Your task to perform on an android device: Open Android settings Image 0: 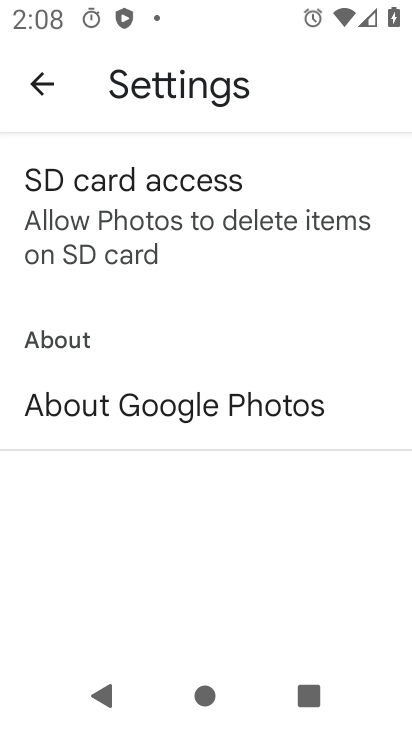
Step 0: press home button
Your task to perform on an android device: Open Android settings Image 1: 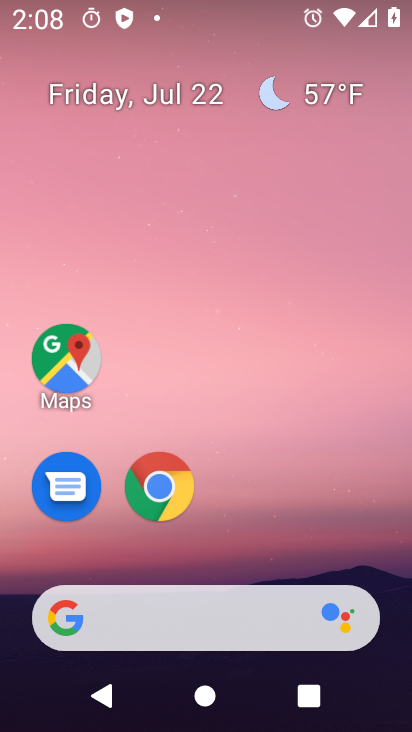
Step 1: drag from (364, 534) to (347, 121)
Your task to perform on an android device: Open Android settings Image 2: 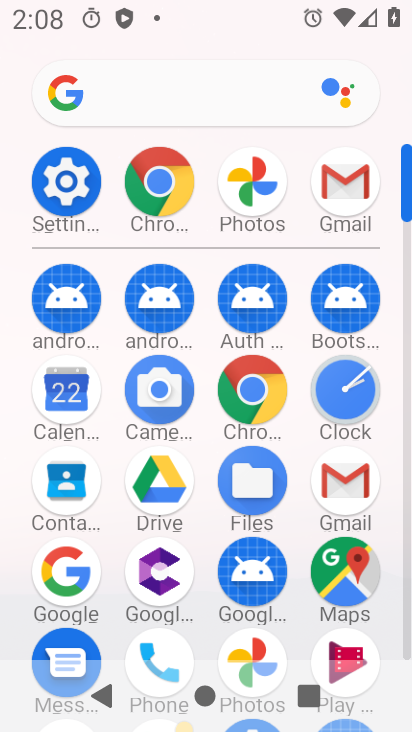
Step 2: click (68, 183)
Your task to perform on an android device: Open Android settings Image 3: 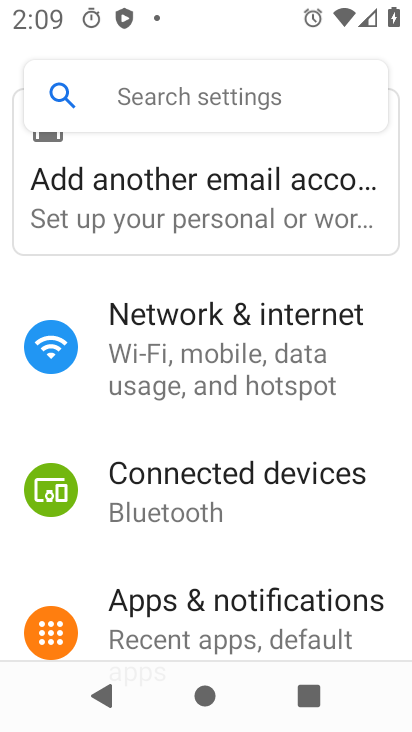
Step 3: drag from (316, 447) to (325, 363)
Your task to perform on an android device: Open Android settings Image 4: 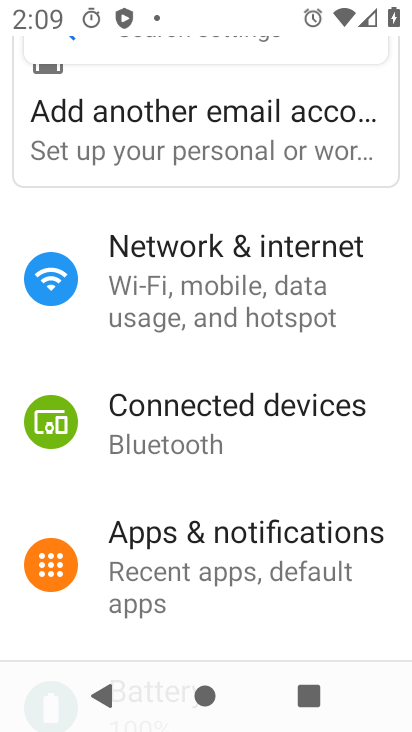
Step 4: drag from (332, 465) to (340, 387)
Your task to perform on an android device: Open Android settings Image 5: 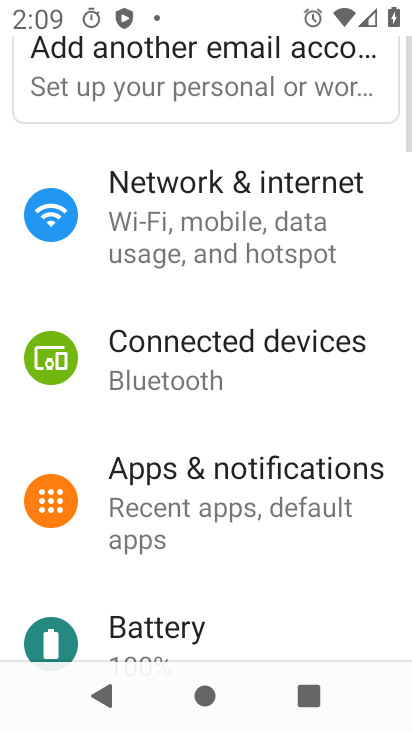
Step 5: drag from (344, 472) to (343, 392)
Your task to perform on an android device: Open Android settings Image 6: 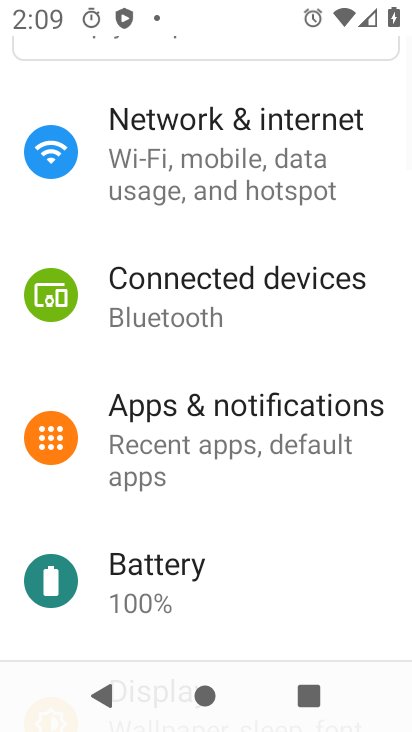
Step 6: drag from (338, 479) to (338, 394)
Your task to perform on an android device: Open Android settings Image 7: 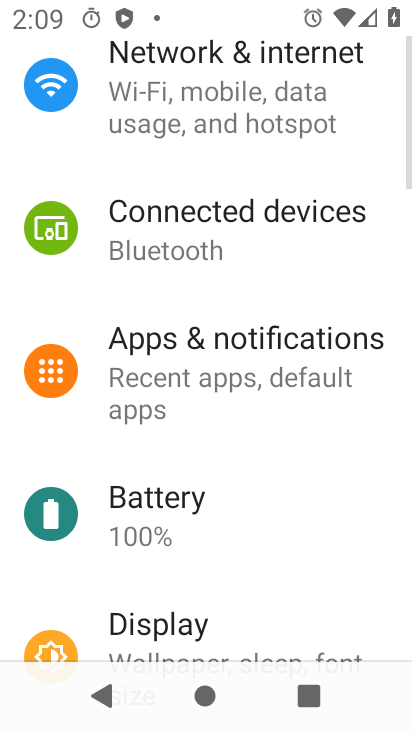
Step 7: drag from (330, 485) to (335, 399)
Your task to perform on an android device: Open Android settings Image 8: 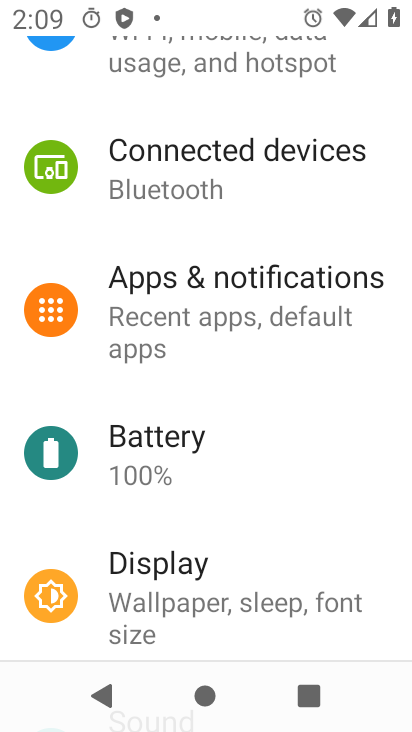
Step 8: drag from (324, 493) to (331, 410)
Your task to perform on an android device: Open Android settings Image 9: 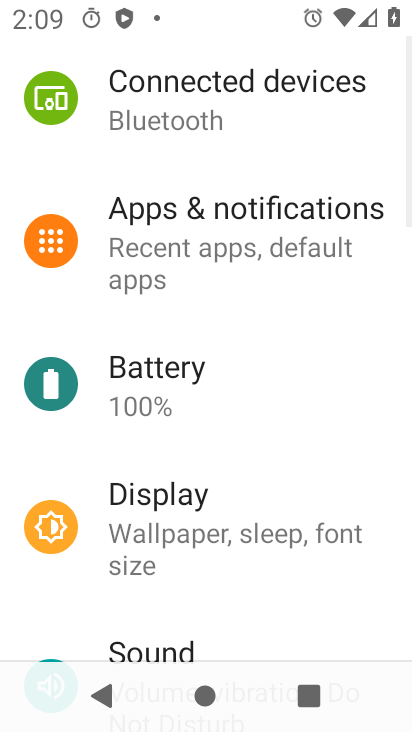
Step 9: drag from (329, 510) to (329, 435)
Your task to perform on an android device: Open Android settings Image 10: 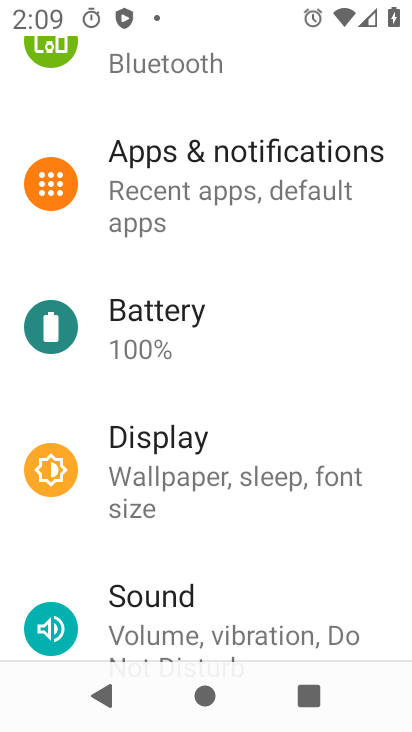
Step 10: drag from (328, 521) to (326, 476)
Your task to perform on an android device: Open Android settings Image 11: 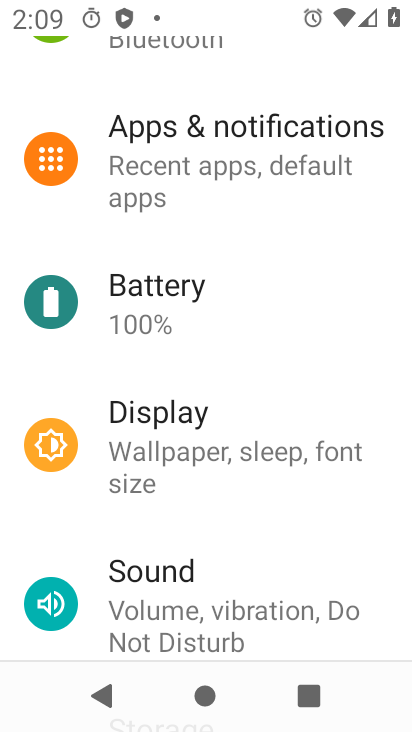
Step 11: drag from (324, 541) to (323, 444)
Your task to perform on an android device: Open Android settings Image 12: 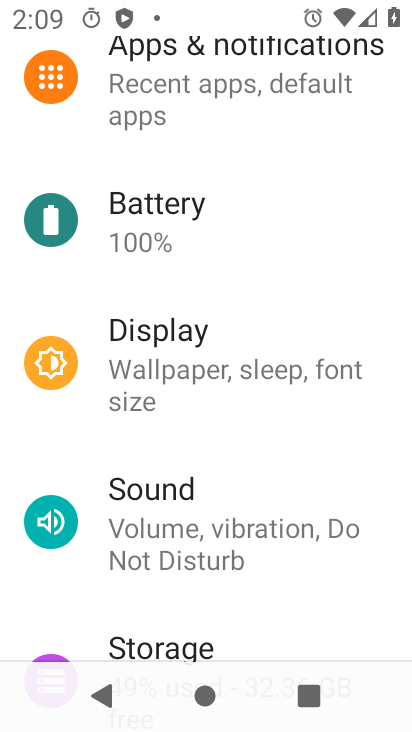
Step 12: drag from (321, 574) to (337, 387)
Your task to perform on an android device: Open Android settings Image 13: 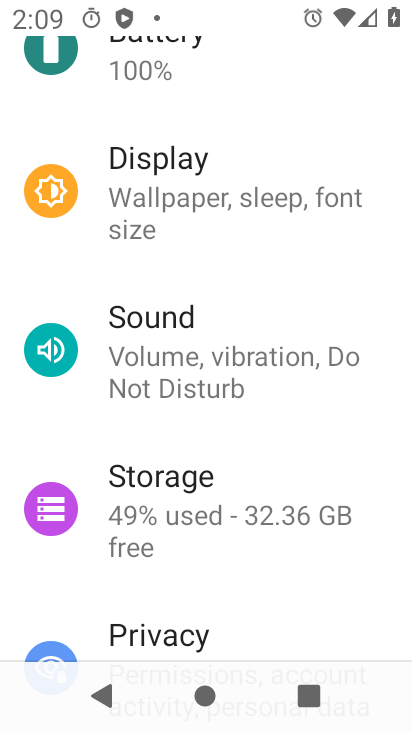
Step 13: drag from (355, 558) to (358, 474)
Your task to perform on an android device: Open Android settings Image 14: 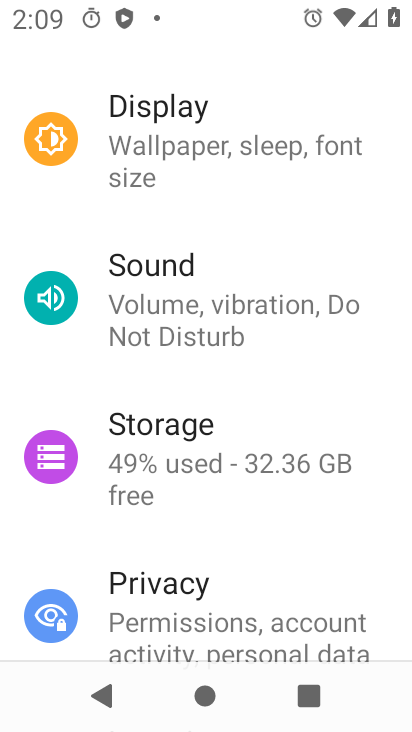
Step 14: drag from (345, 532) to (329, 420)
Your task to perform on an android device: Open Android settings Image 15: 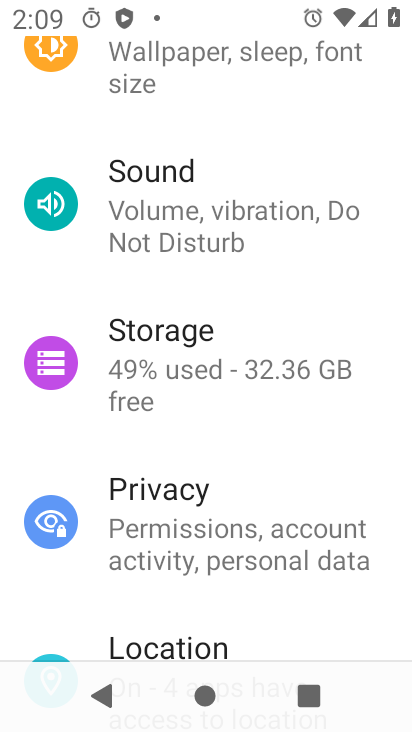
Step 15: drag from (341, 556) to (343, 449)
Your task to perform on an android device: Open Android settings Image 16: 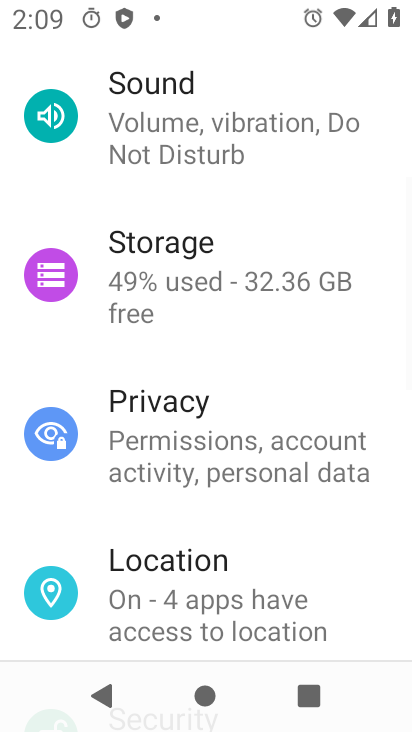
Step 16: drag from (356, 568) to (356, 511)
Your task to perform on an android device: Open Android settings Image 17: 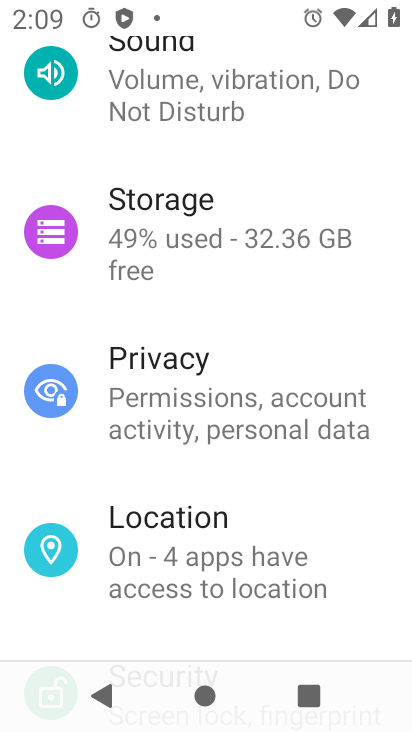
Step 17: drag from (370, 570) to (362, 501)
Your task to perform on an android device: Open Android settings Image 18: 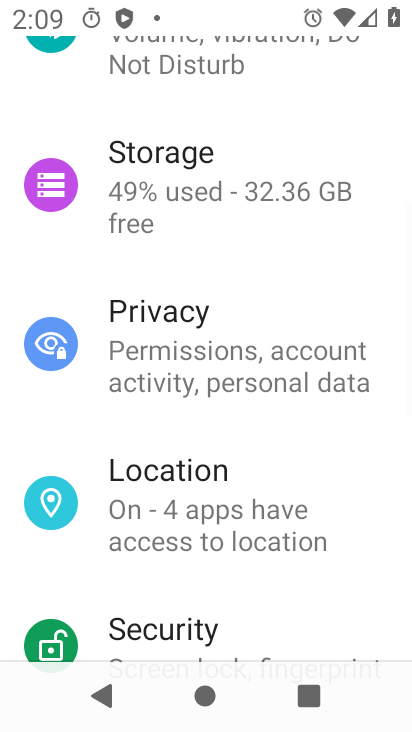
Step 18: drag from (352, 588) to (352, 464)
Your task to perform on an android device: Open Android settings Image 19: 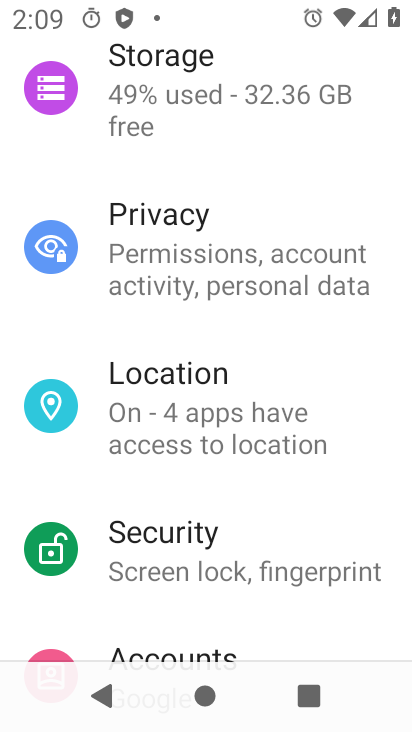
Step 19: drag from (341, 515) to (341, 352)
Your task to perform on an android device: Open Android settings Image 20: 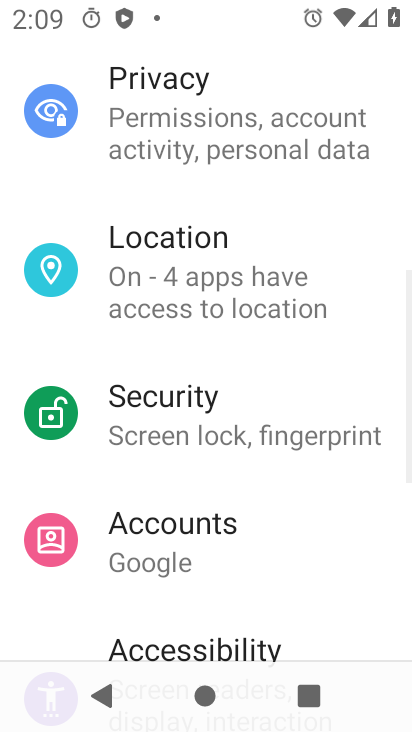
Step 20: drag from (338, 525) to (340, 384)
Your task to perform on an android device: Open Android settings Image 21: 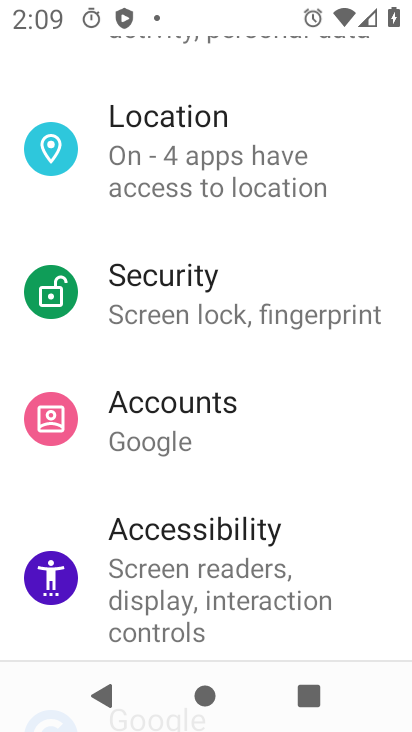
Step 21: drag from (342, 538) to (332, 373)
Your task to perform on an android device: Open Android settings Image 22: 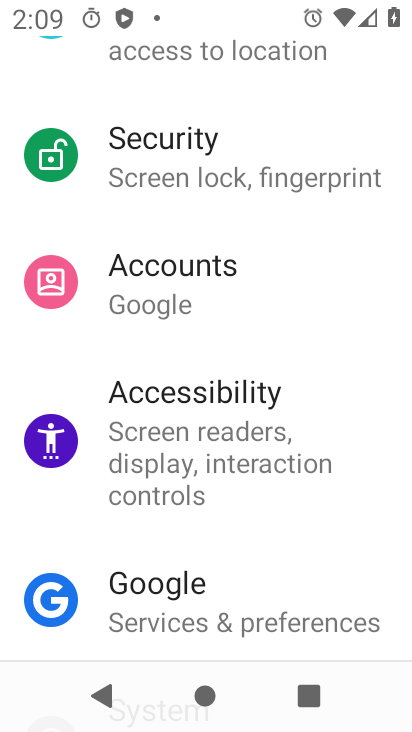
Step 22: drag from (309, 566) to (320, 421)
Your task to perform on an android device: Open Android settings Image 23: 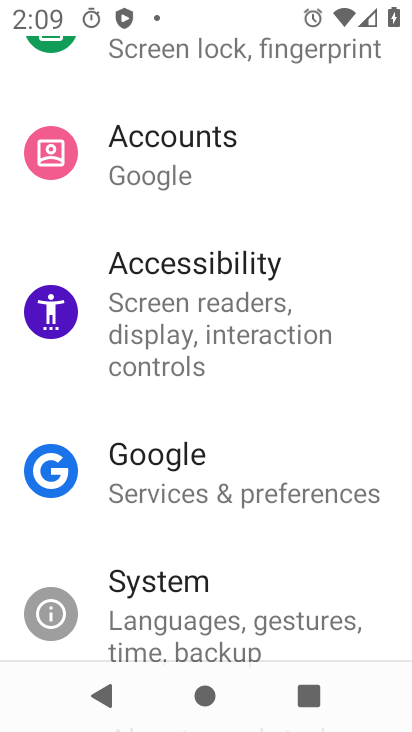
Step 23: drag from (305, 566) to (309, 453)
Your task to perform on an android device: Open Android settings Image 24: 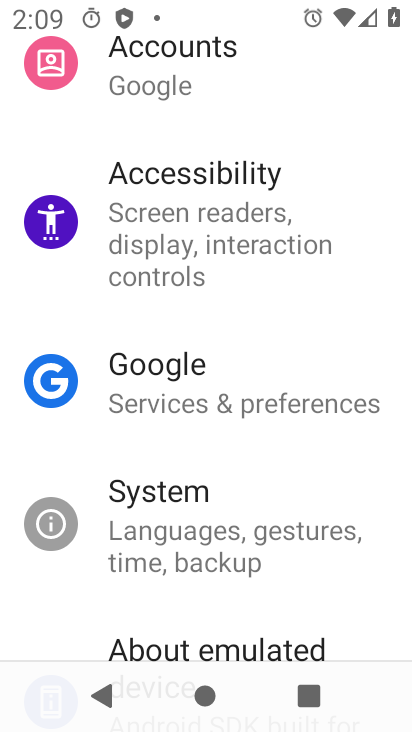
Step 24: click (309, 501)
Your task to perform on an android device: Open Android settings Image 25: 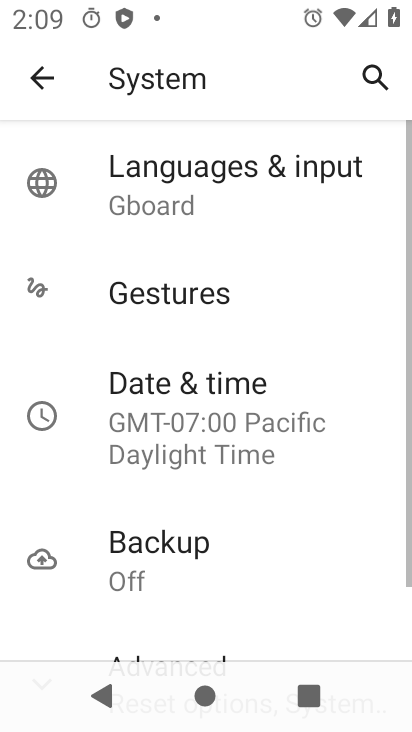
Step 25: drag from (311, 555) to (315, 442)
Your task to perform on an android device: Open Android settings Image 26: 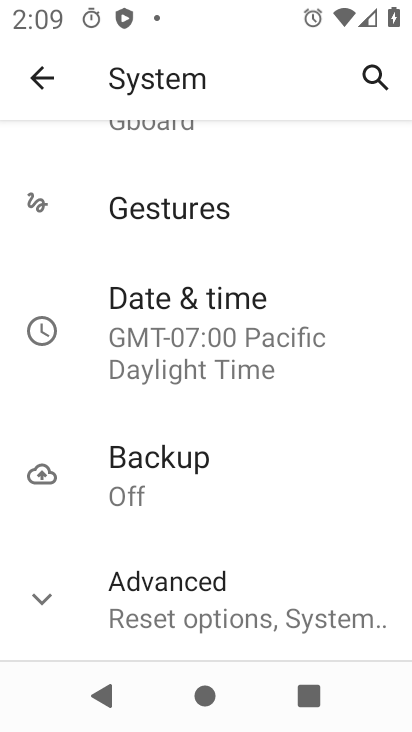
Step 26: click (237, 610)
Your task to perform on an android device: Open Android settings Image 27: 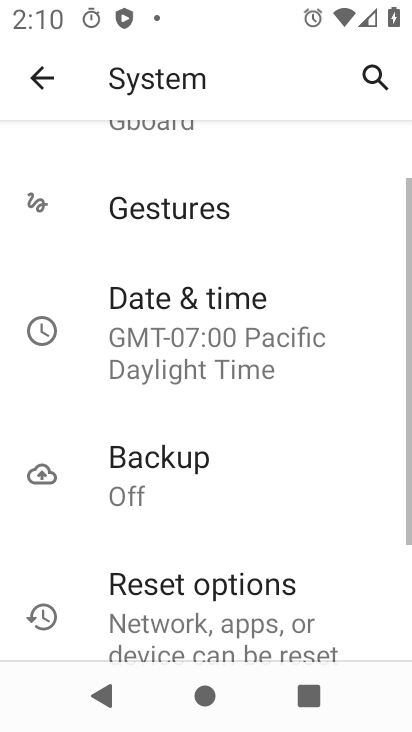
Step 27: task complete